Your task to perform on an android device: open app "Lyft - Rideshare, Bikes, Scooters & Transit" Image 0: 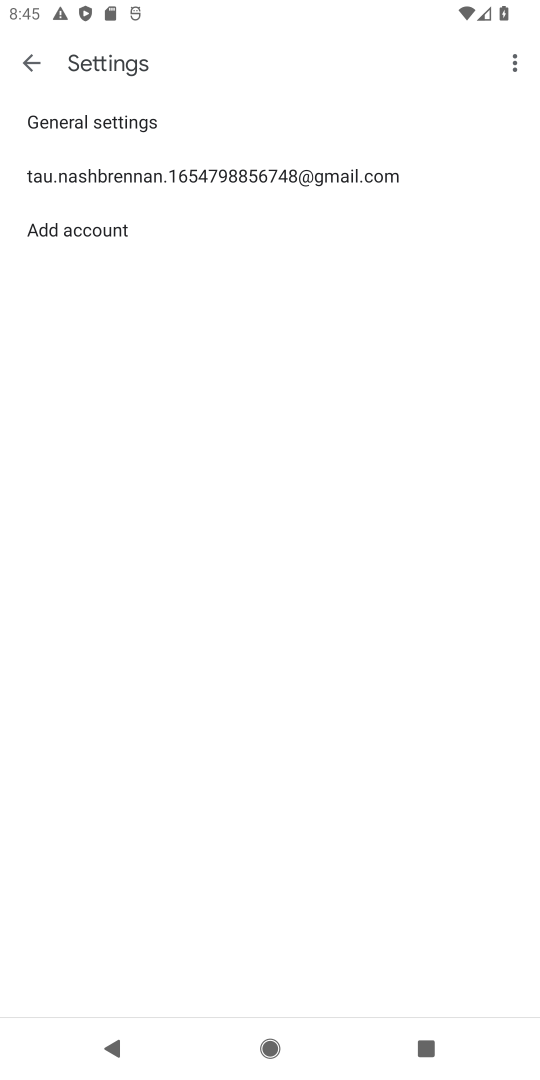
Step 0: press home button
Your task to perform on an android device: open app "Lyft - Rideshare, Bikes, Scooters & Transit" Image 1: 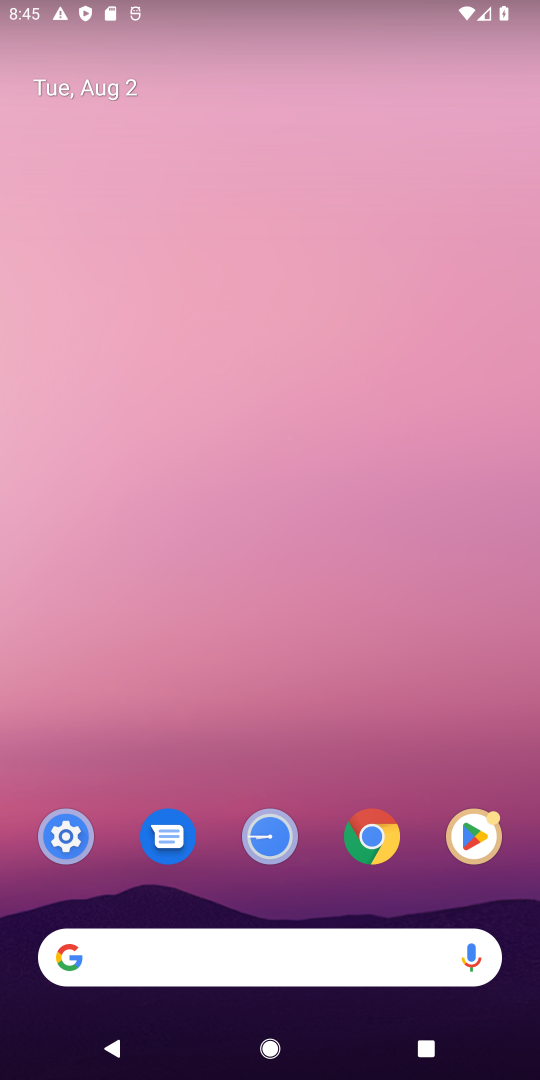
Step 1: drag from (329, 764) to (197, 80)
Your task to perform on an android device: open app "Lyft - Rideshare, Bikes, Scooters & Transit" Image 2: 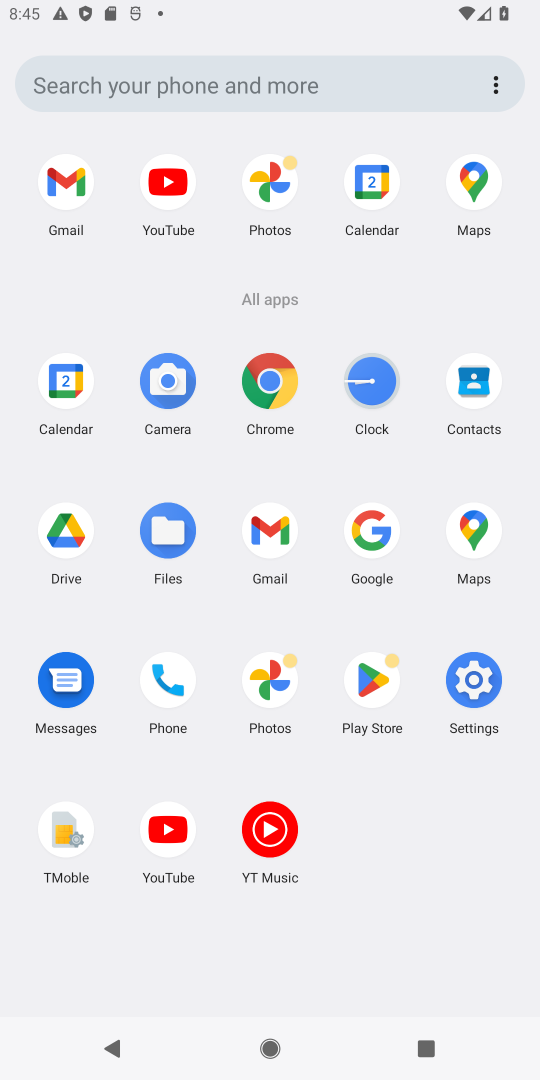
Step 2: click (356, 688)
Your task to perform on an android device: open app "Lyft - Rideshare, Bikes, Scooters & Transit" Image 3: 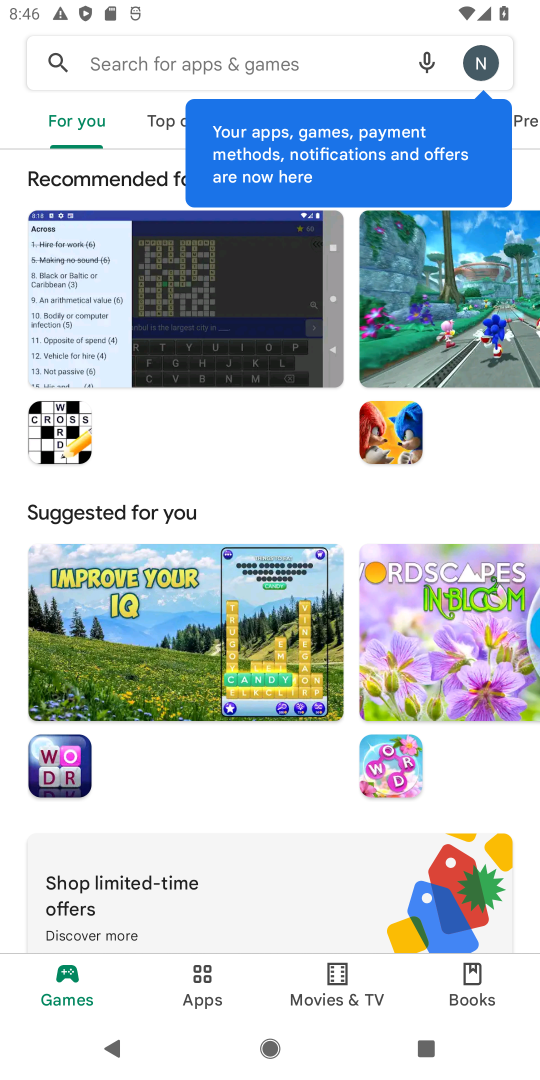
Step 3: click (137, 54)
Your task to perform on an android device: open app "Lyft - Rideshare, Bikes, Scooters & Transit" Image 4: 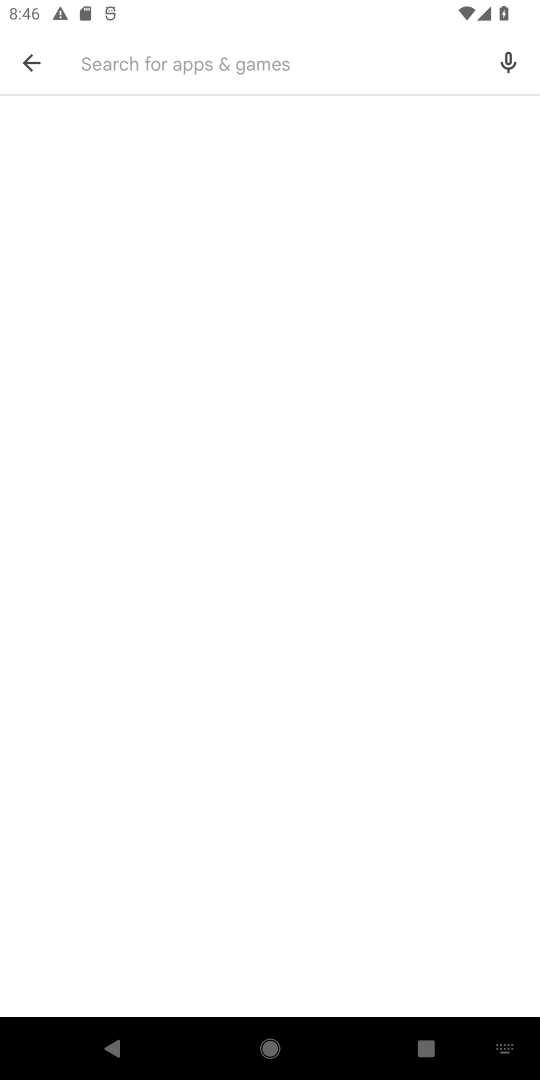
Step 4: type "Lyft - Rideshare, Bikes, Scooters & Transit"
Your task to perform on an android device: open app "Lyft - Rideshare, Bikes, Scooters & Transit" Image 5: 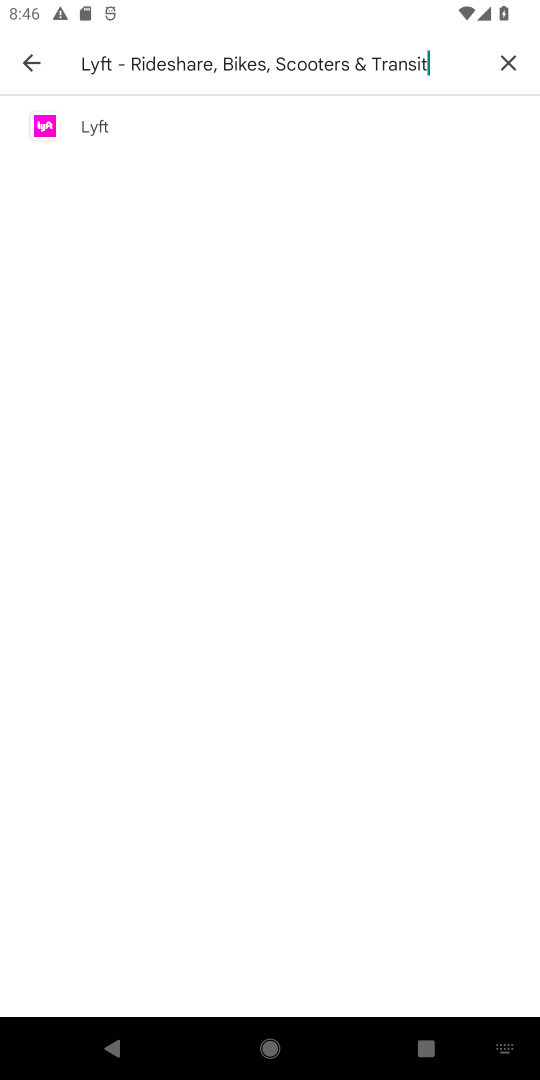
Step 5: click (195, 114)
Your task to perform on an android device: open app "Lyft - Rideshare, Bikes, Scooters & Transit" Image 6: 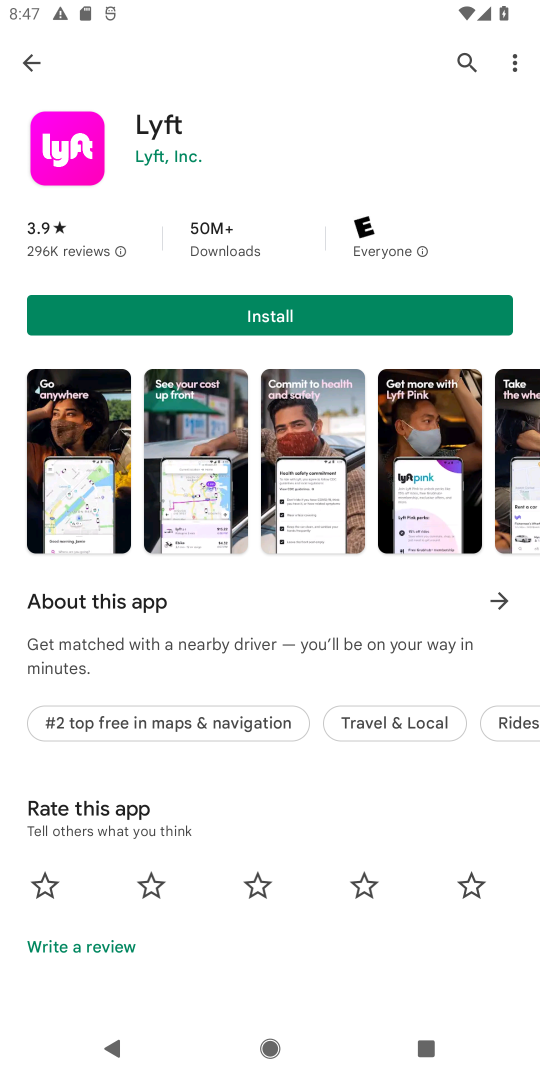
Step 6: task complete